Your task to perform on an android device: change the clock style Image 0: 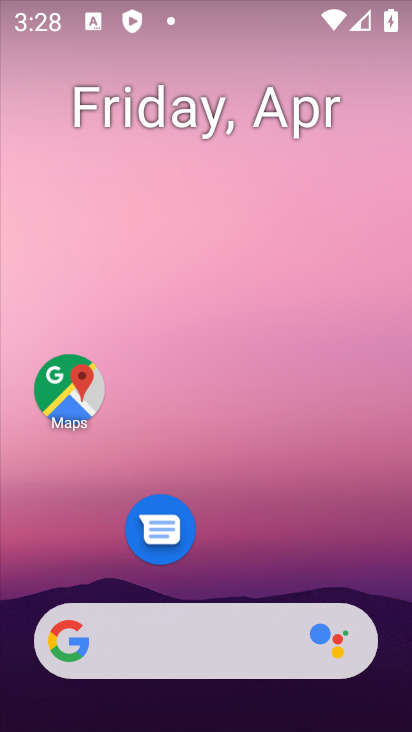
Step 0: drag from (231, 521) to (354, 98)
Your task to perform on an android device: change the clock style Image 1: 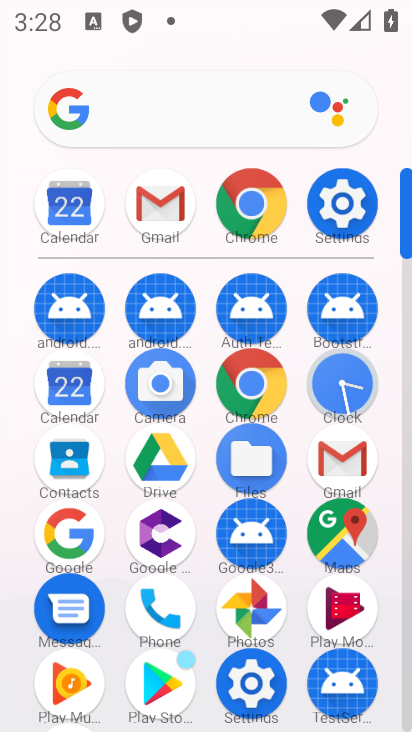
Step 1: click (345, 390)
Your task to perform on an android device: change the clock style Image 2: 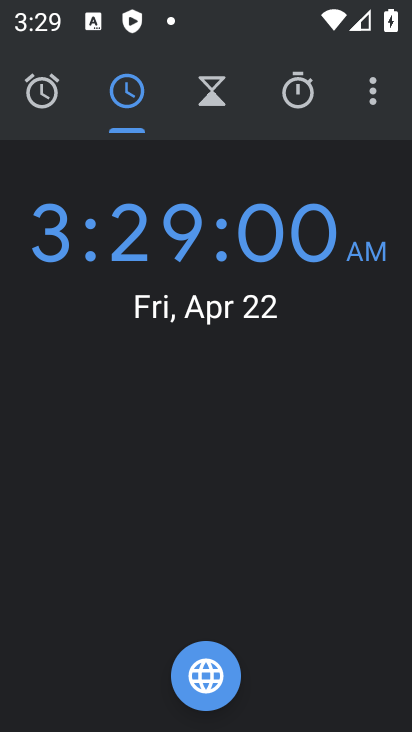
Step 2: click (368, 97)
Your task to perform on an android device: change the clock style Image 3: 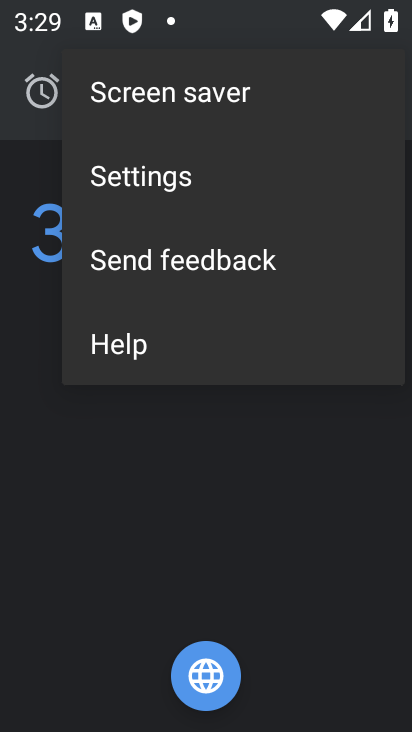
Step 3: click (236, 197)
Your task to perform on an android device: change the clock style Image 4: 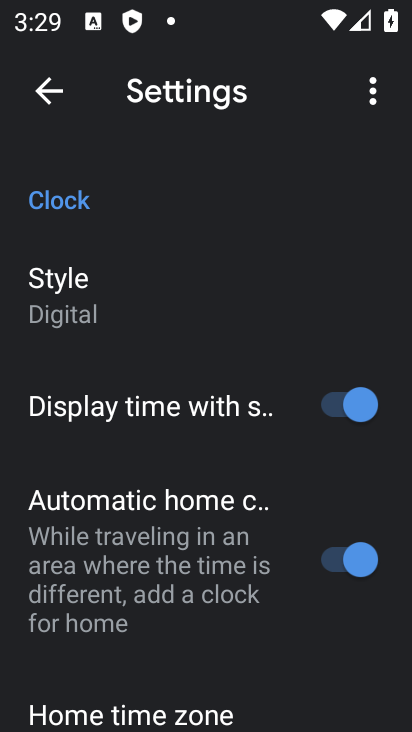
Step 4: click (237, 301)
Your task to perform on an android device: change the clock style Image 5: 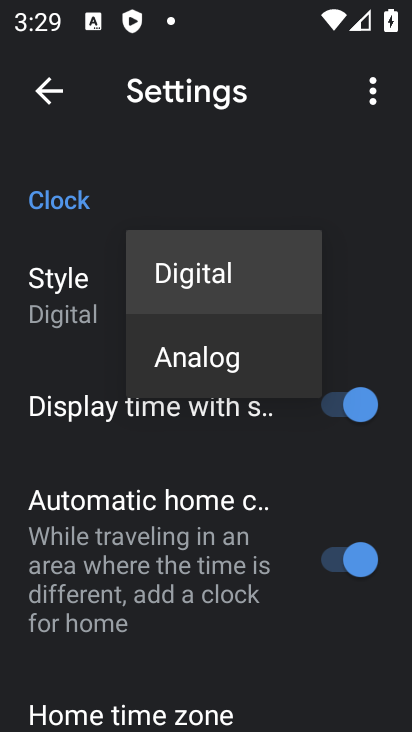
Step 5: click (239, 347)
Your task to perform on an android device: change the clock style Image 6: 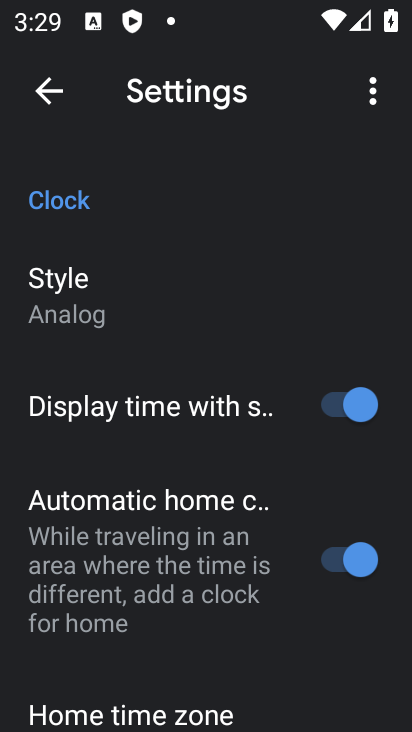
Step 6: task complete